Your task to perform on an android device: toggle translation in the chrome app Image 0: 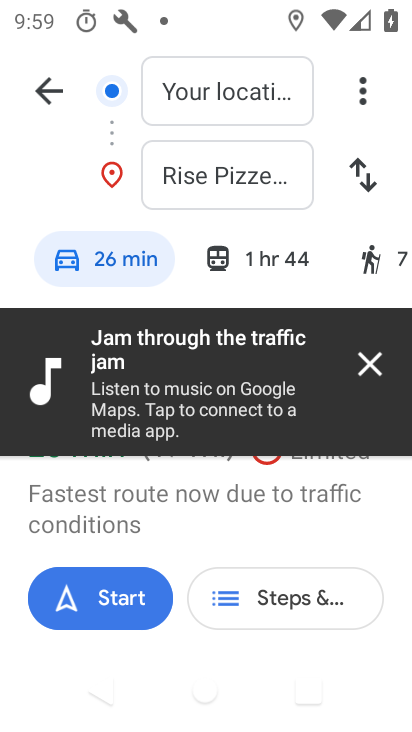
Step 0: press back button
Your task to perform on an android device: toggle translation in the chrome app Image 1: 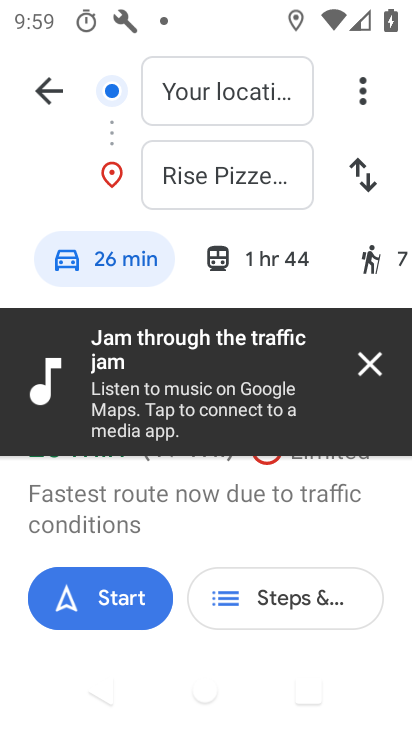
Step 1: press back button
Your task to perform on an android device: toggle translation in the chrome app Image 2: 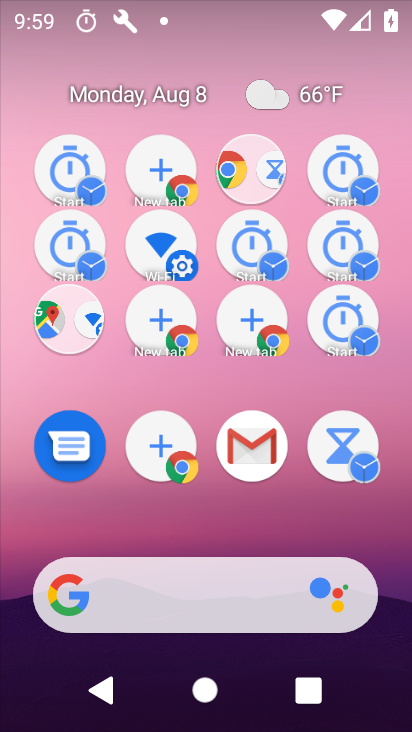
Step 2: drag from (247, 537) to (177, 203)
Your task to perform on an android device: toggle translation in the chrome app Image 3: 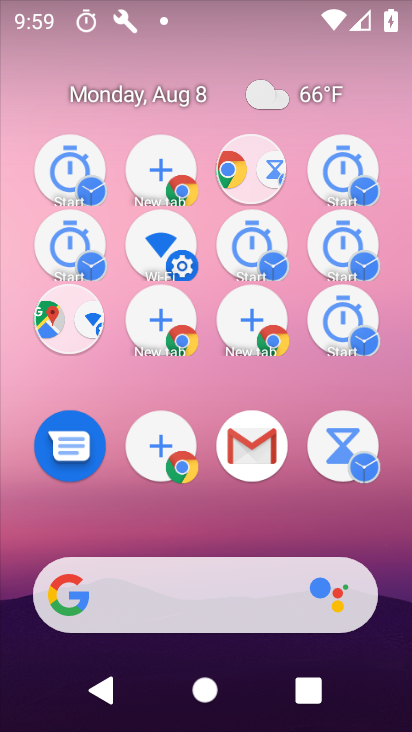
Step 3: drag from (243, 488) to (243, 249)
Your task to perform on an android device: toggle translation in the chrome app Image 4: 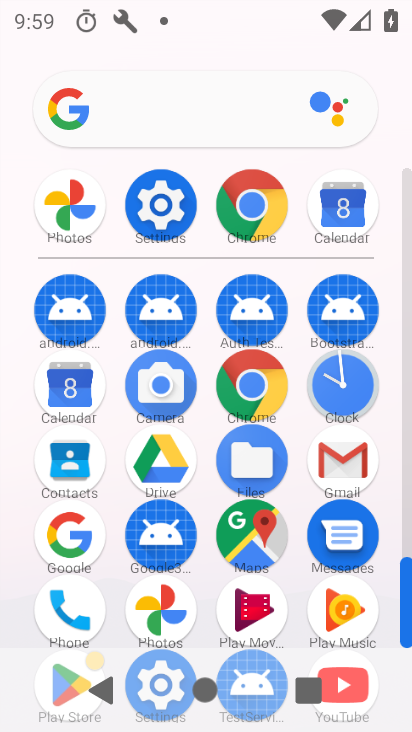
Step 4: click (250, 213)
Your task to perform on an android device: toggle translation in the chrome app Image 5: 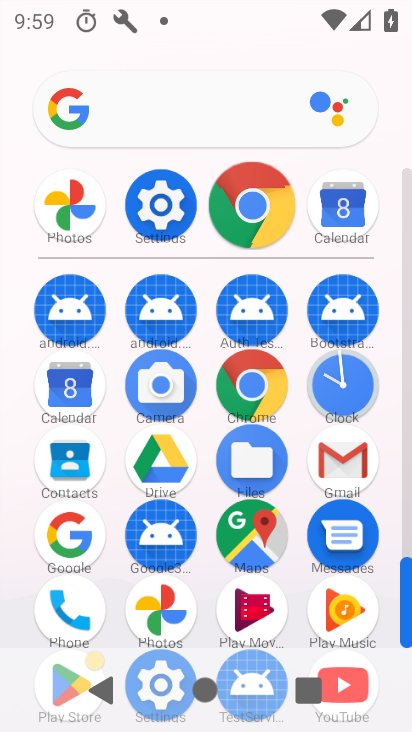
Step 5: click (251, 212)
Your task to perform on an android device: toggle translation in the chrome app Image 6: 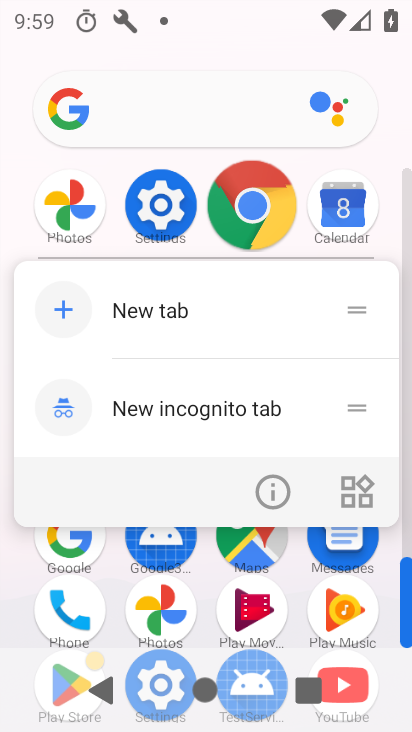
Step 6: click (251, 212)
Your task to perform on an android device: toggle translation in the chrome app Image 7: 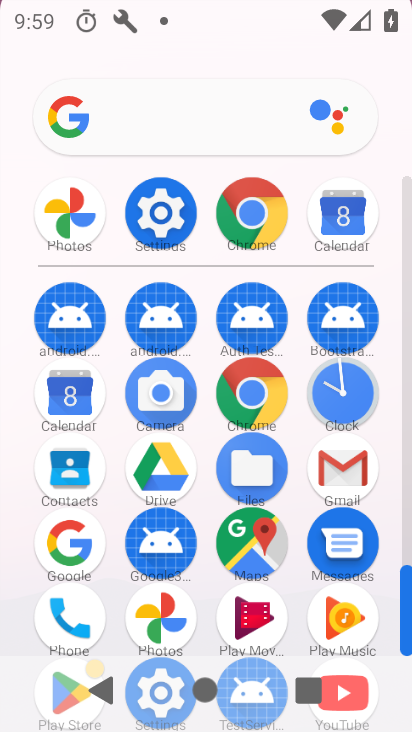
Step 7: click (251, 242)
Your task to perform on an android device: toggle translation in the chrome app Image 8: 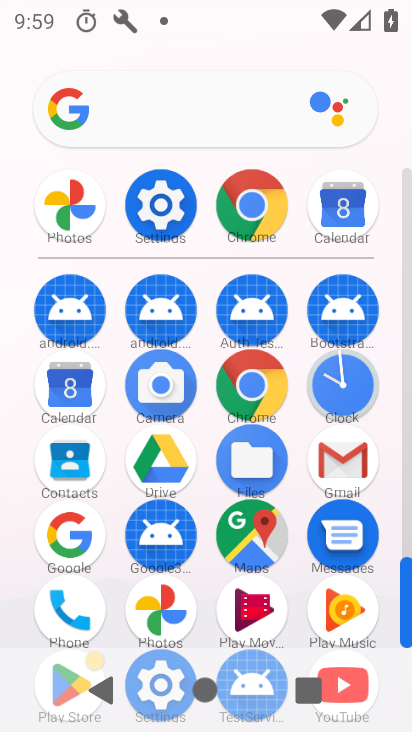
Step 8: click (245, 219)
Your task to perform on an android device: toggle translation in the chrome app Image 9: 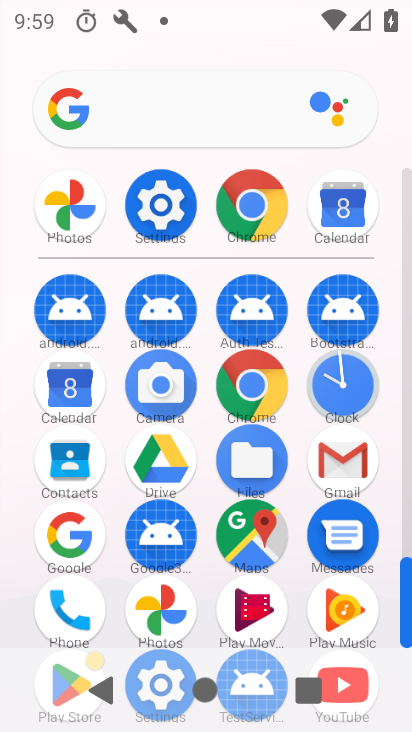
Step 9: click (245, 219)
Your task to perform on an android device: toggle translation in the chrome app Image 10: 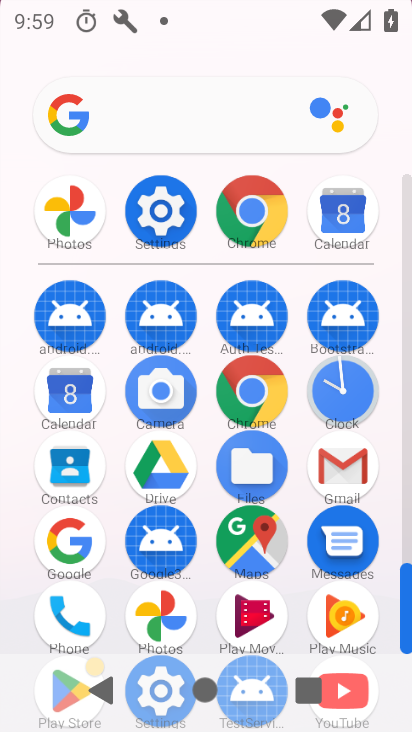
Step 10: click (254, 209)
Your task to perform on an android device: toggle translation in the chrome app Image 11: 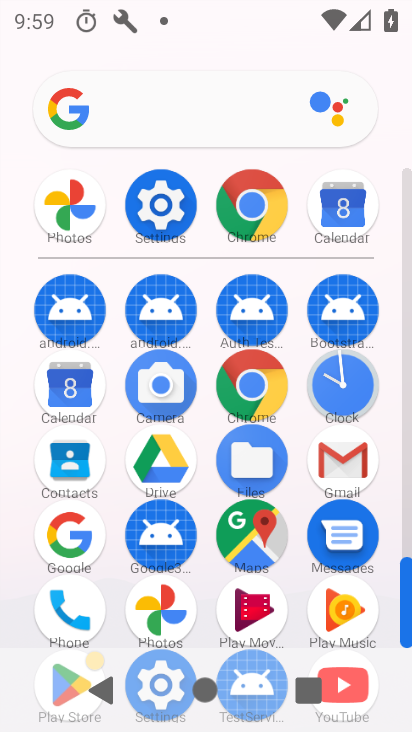
Step 11: click (248, 197)
Your task to perform on an android device: toggle translation in the chrome app Image 12: 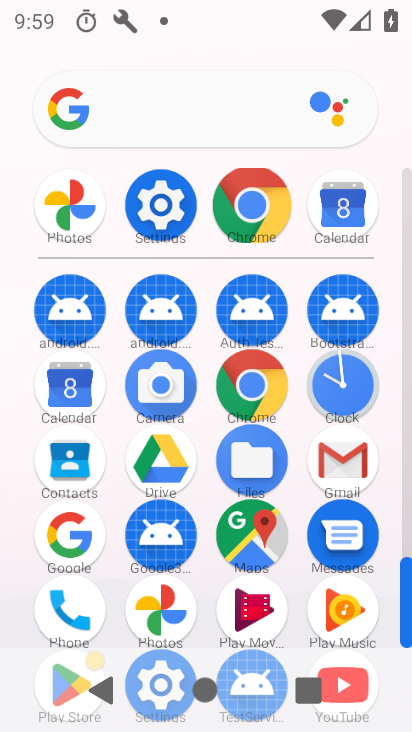
Step 12: click (245, 178)
Your task to perform on an android device: toggle translation in the chrome app Image 13: 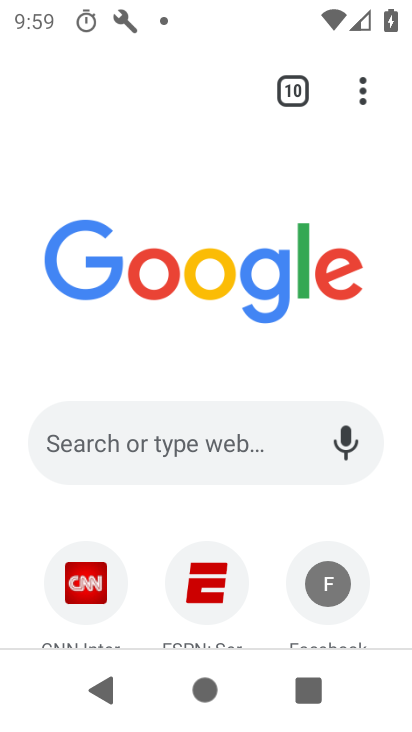
Step 13: click (267, 205)
Your task to perform on an android device: toggle translation in the chrome app Image 14: 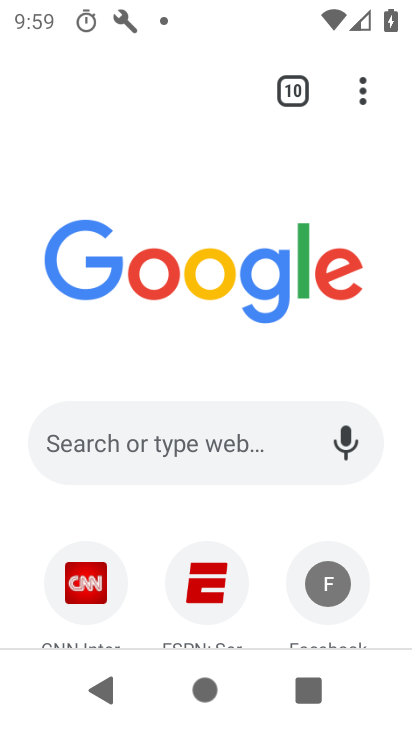
Step 14: click (261, 204)
Your task to perform on an android device: toggle translation in the chrome app Image 15: 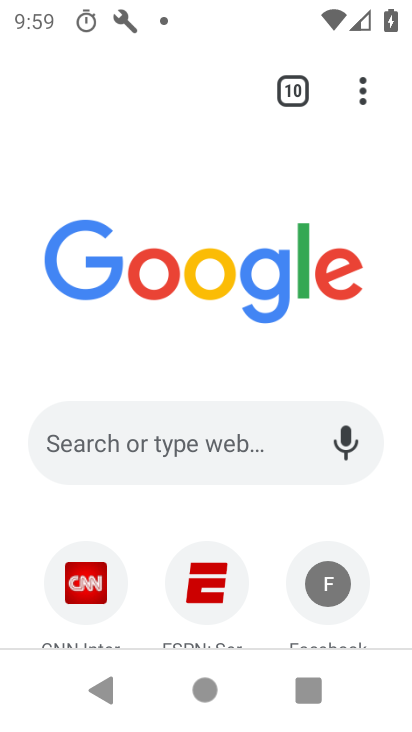
Step 15: drag from (354, 85) to (94, 465)
Your task to perform on an android device: toggle translation in the chrome app Image 16: 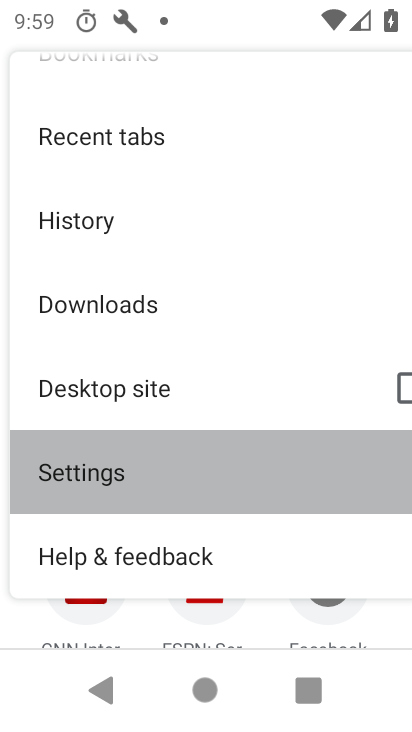
Step 16: click (93, 467)
Your task to perform on an android device: toggle translation in the chrome app Image 17: 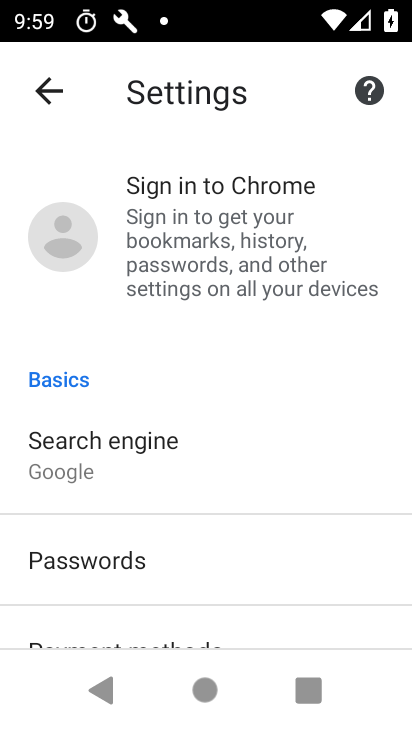
Step 17: drag from (172, 501) to (131, 213)
Your task to perform on an android device: toggle translation in the chrome app Image 18: 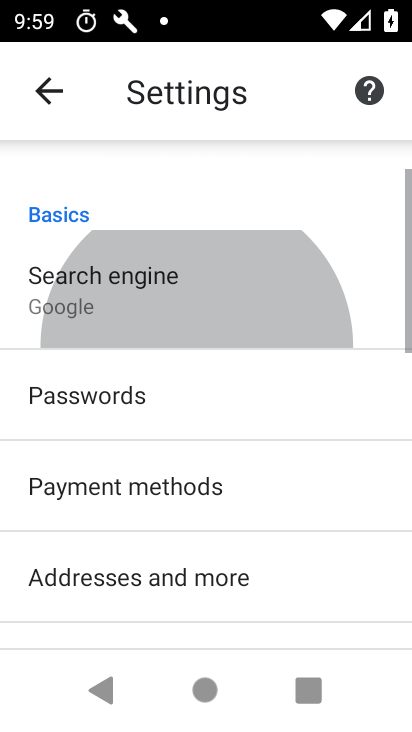
Step 18: drag from (155, 534) to (148, 319)
Your task to perform on an android device: toggle translation in the chrome app Image 19: 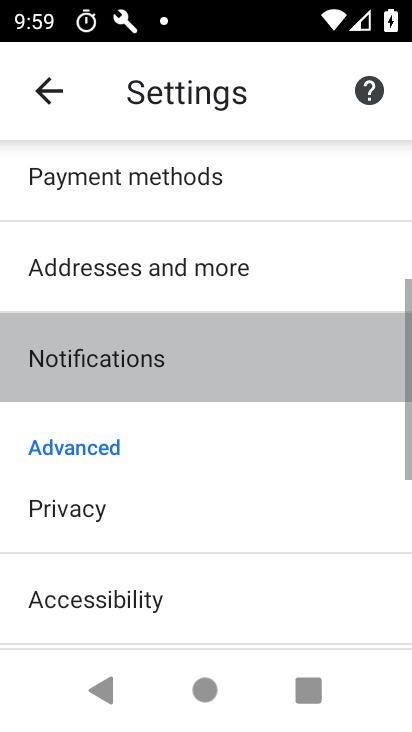
Step 19: drag from (184, 424) to (174, 311)
Your task to perform on an android device: toggle translation in the chrome app Image 20: 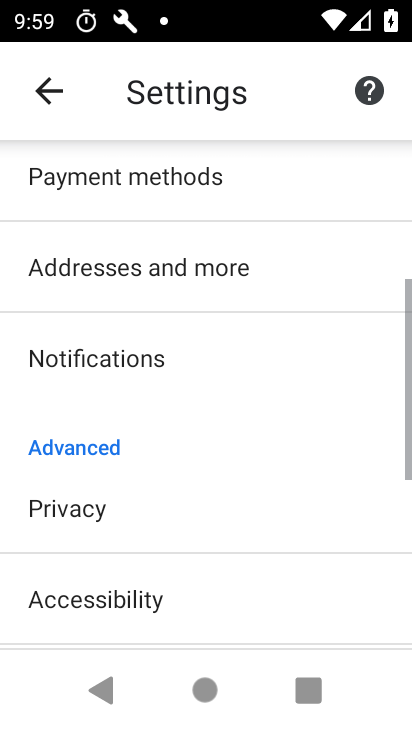
Step 20: drag from (176, 530) to (187, 143)
Your task to perform on an android device: toggle translation in the chrome app Image 21: 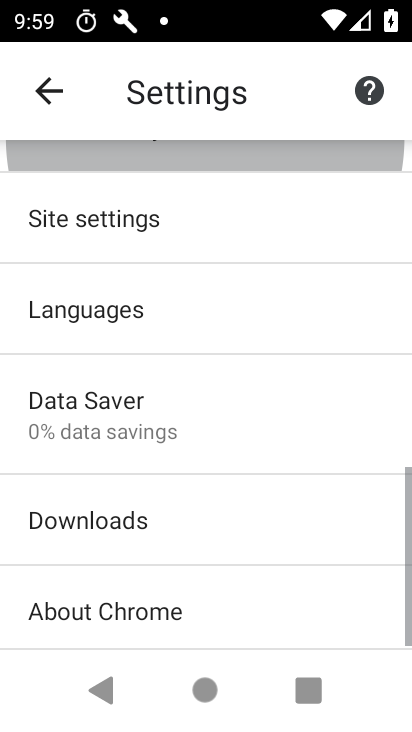
Step 21: drag from (239, 185) to (191, 301)
Your task to perform on an android device: toggle translation in the chrome app Image 22: 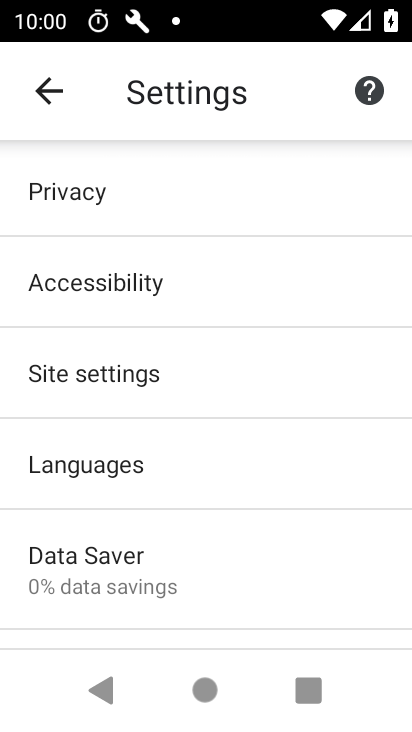
Step 22: click (78, 461)
Your task to perform on an android device: toggle translation in the chrome app Image 23: 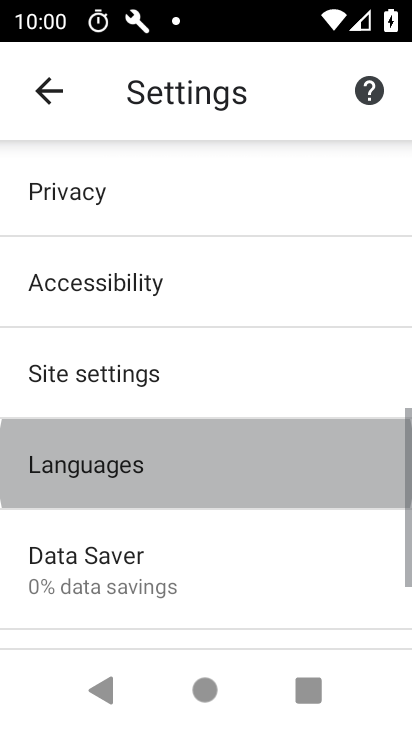
Step 23: click (79, 460)
Your task to perform on an android device: toggle translation in the chrome app Image 24: 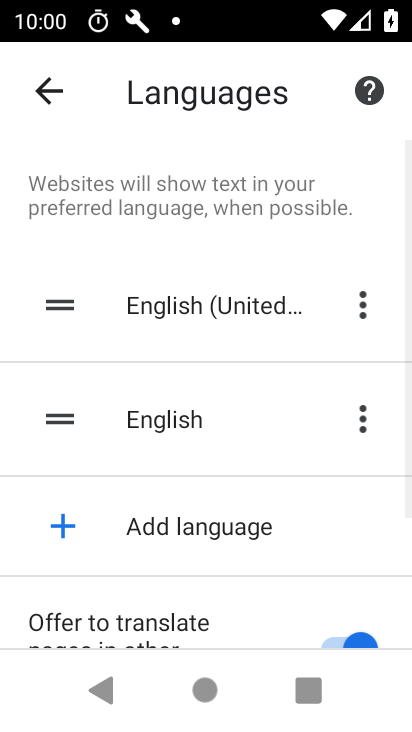
Step 24: drag from (221, 506) to (180, 196)
Your task to perform on an android device: toggle translation in the chrome app Image 25: 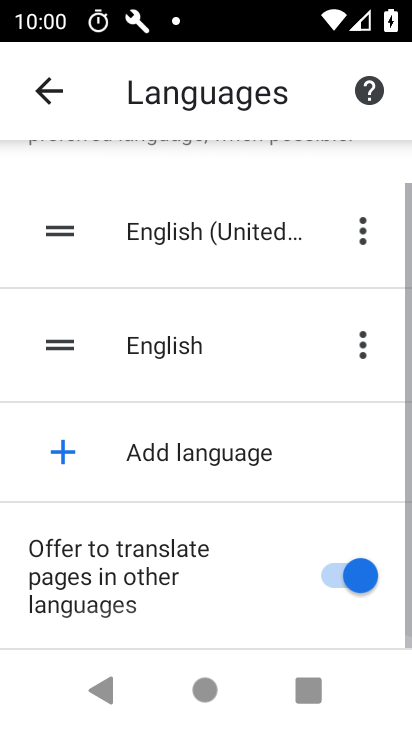
Step 25: drag from (210, 488) to (168, 180)
Your task to perform on an android device: toggle translation in the chrome app Image 26: 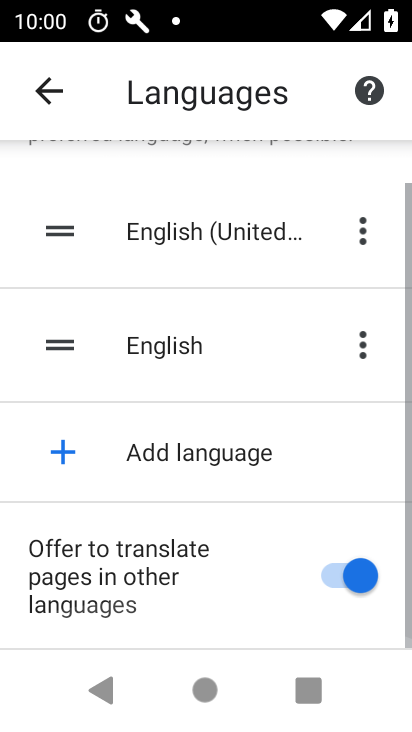
Step 26: click (196, 269)
Your task to perform on an android device: toggle translation in the chrome app Image 27: 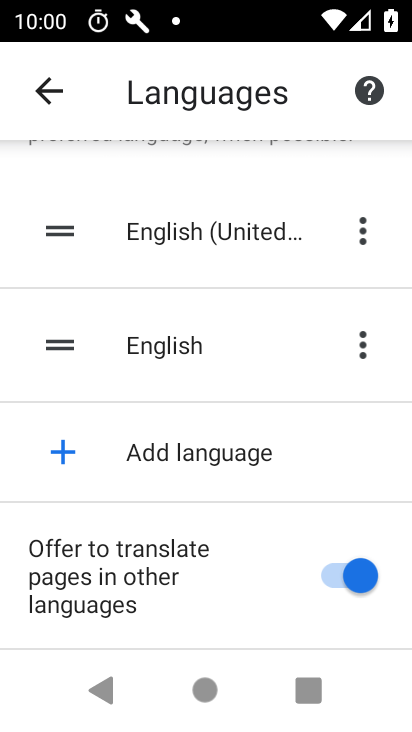
Step 27: drag from (224, 531) to (237, 267)
Your task to perform on an android device: toggle translation in the chrome app Image 28: 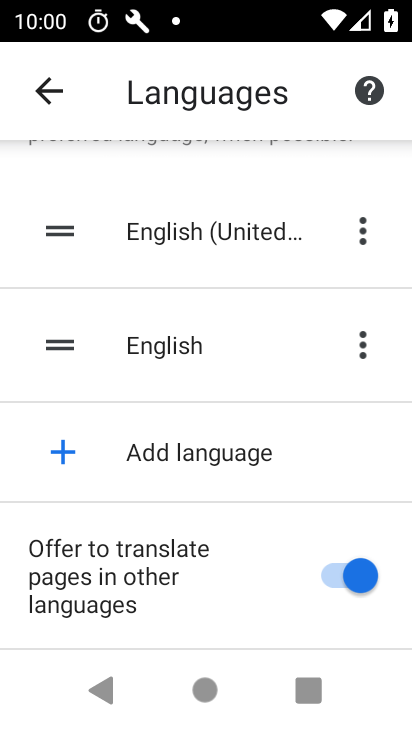
Step 28: click (362, 573)
Your task to perform on an android device: toggle translation in the chrome app Image 29: 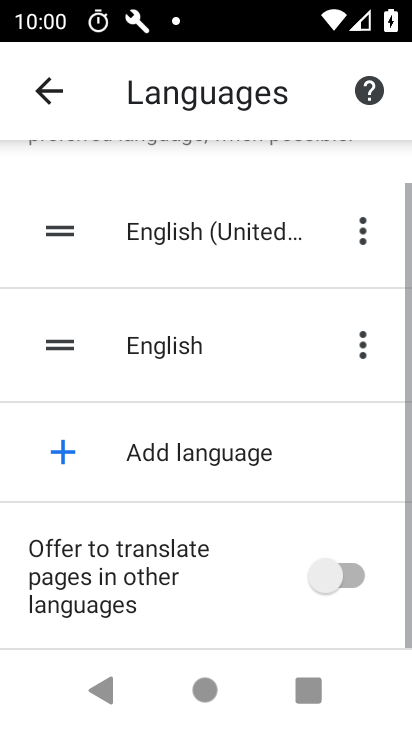
Step 29: task complete